Your task to perform on an android device: Show me popular videos on Youtube Image 0: 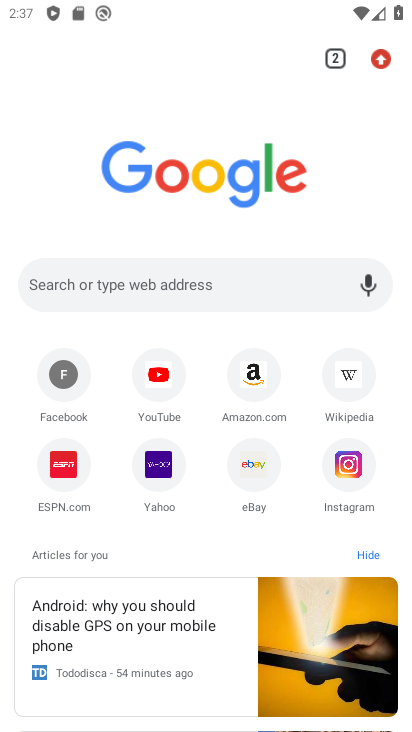
Step 0: press home button
Your task to perform on an android device: Show me popular videos on Youtube Image 1: 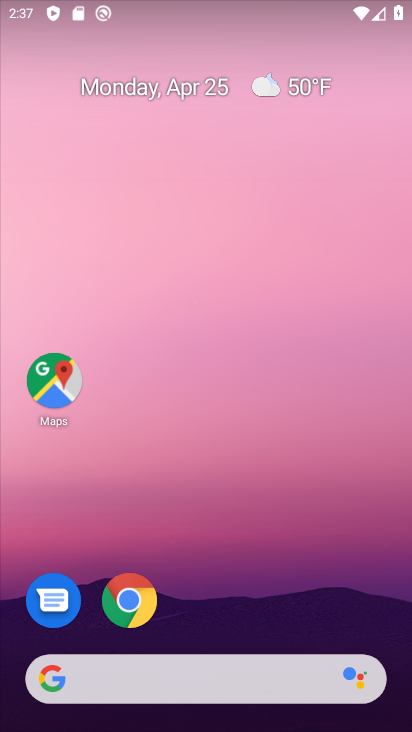
Step 1: drag from (381, 587) to (386, 184)
Your task to perform on an android device: Show me popular videos on Youtube Image 2: 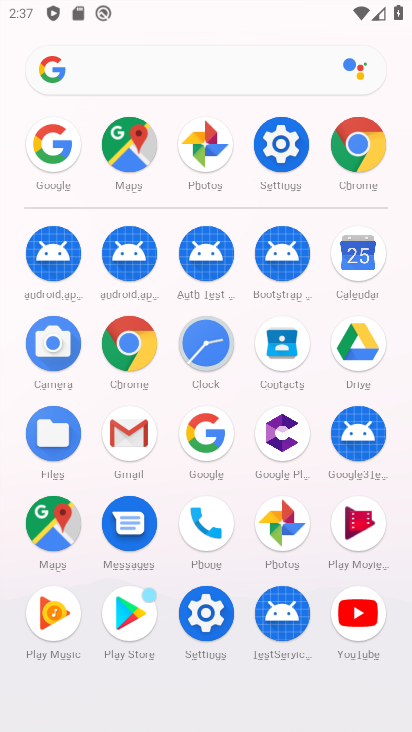
Step 2: click (366, 619)
Your task to perform on an android device: Show me popular videos on Youtube Image 3: 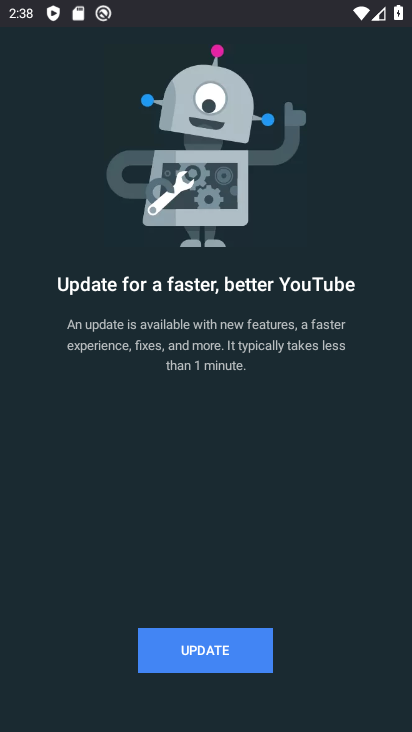
Step 3: press home button
Your task to perform on an android device: Show me popular videos on Youtube Image 4: 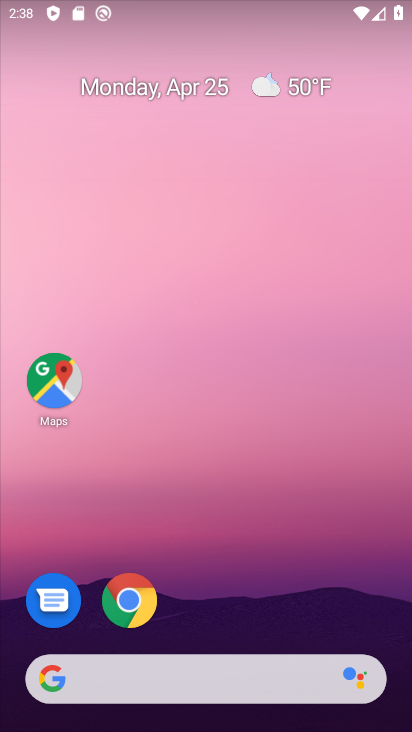
Step 4: drag from (326, 628) to (320, 301)
Your task to perform on an android device: Show me popular videos on Youtube Image 5: 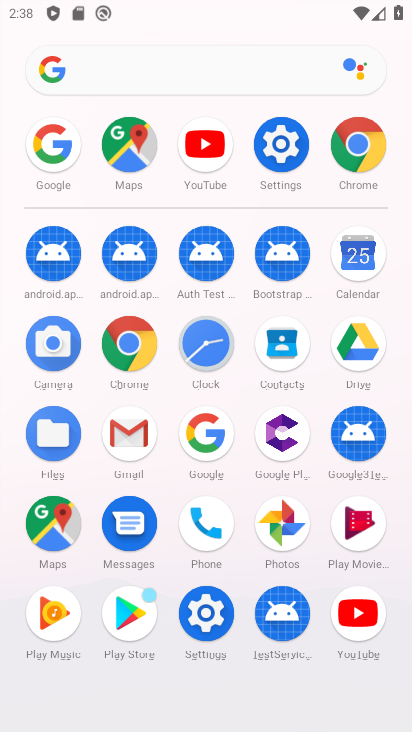
Step 5: click (363, 614)
Your task to perform on an android device: Show me popular videos on Youtube Image 6: 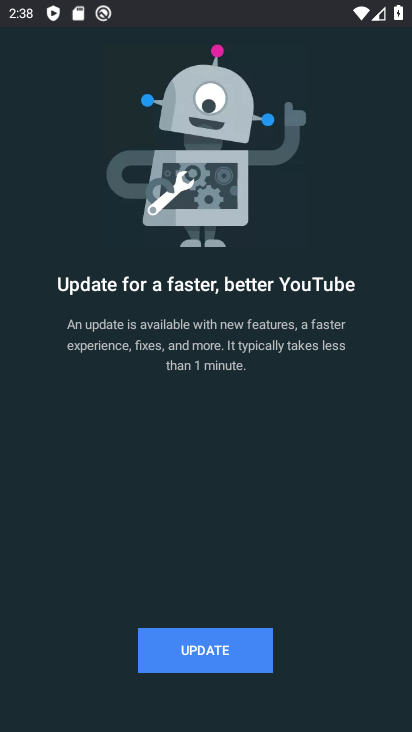
Step 6: click (226, 638)
Your task to perform on an android device: Show me popular videos on Youtube Image 7: 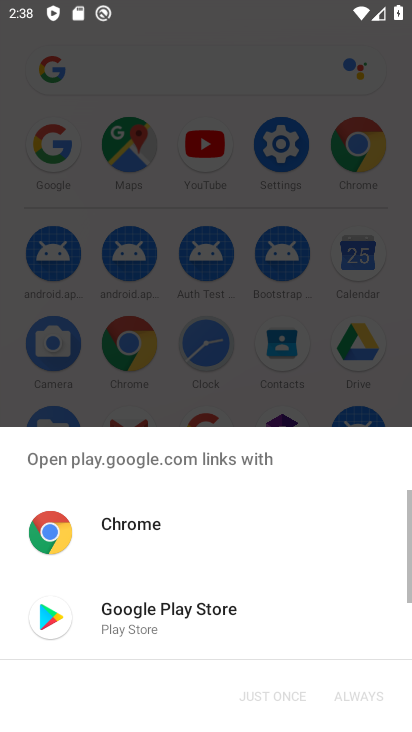
Step 7: click (163, 605)
Your task to perform on an android device: Show me popular videos on Youtube Image 8: 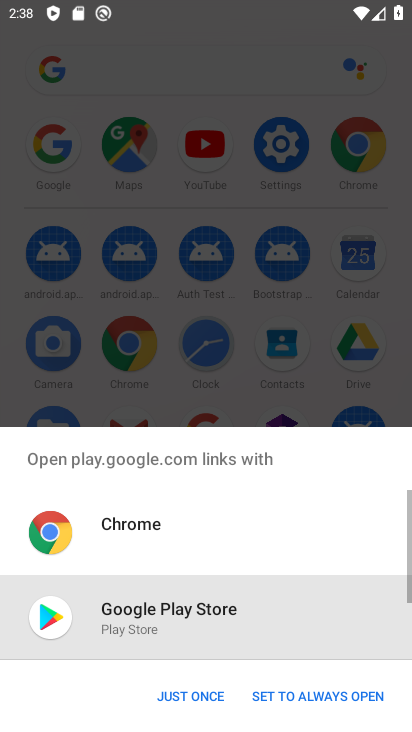
Step 8: click (197, 694)
Your task to perform on an android device: Show me popular videos on Youtube Image 9: 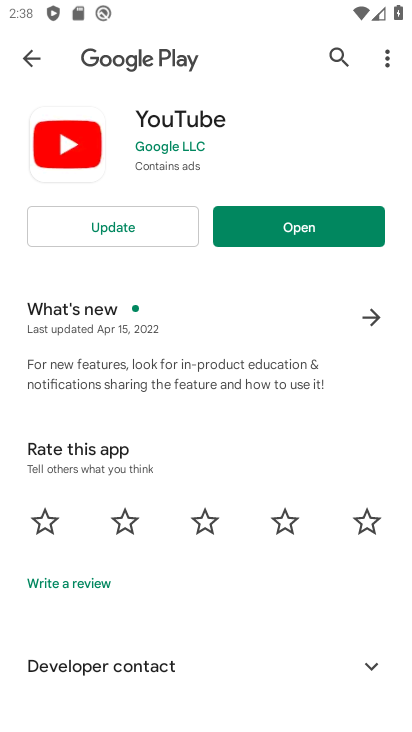
Step 9: click (111, 224)
Your task to perform on an android device: Show me popular videos on Youtube Image 10: 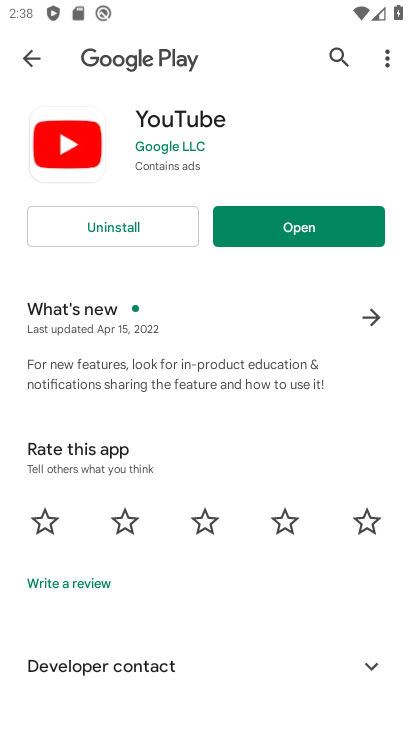
Step 10: click (318, 227)
Your task to perform on an android device: Show me popular videos on Youtube Image 11: 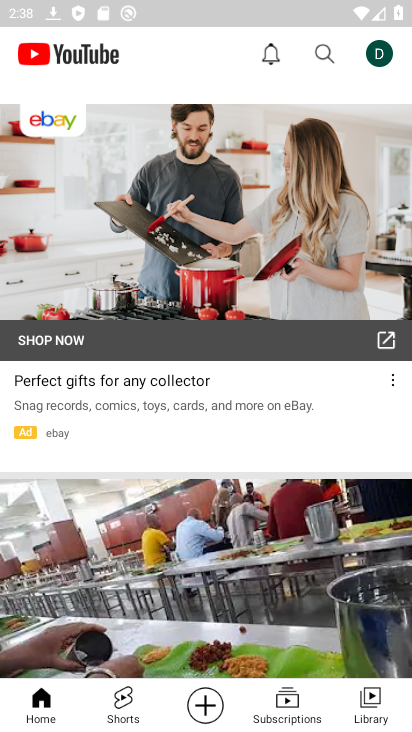
Step 11: task complete